Your task to perform on an android device: Do I have any events today? Image 0: 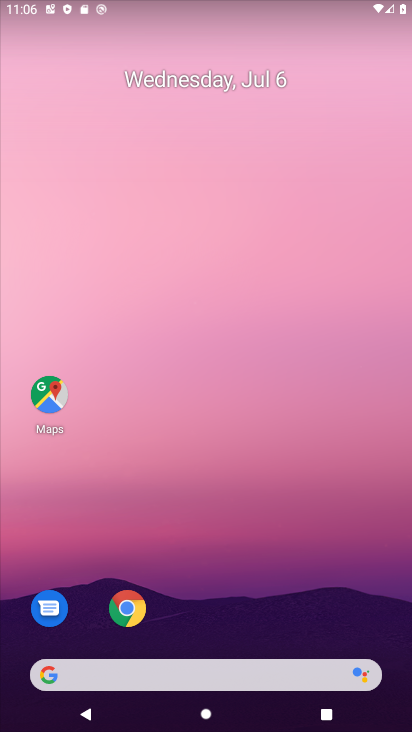
Step 0: drag from (197, 629) to (152, 120)
Your task to perform on an android device: Do I have any events today? Image 1: 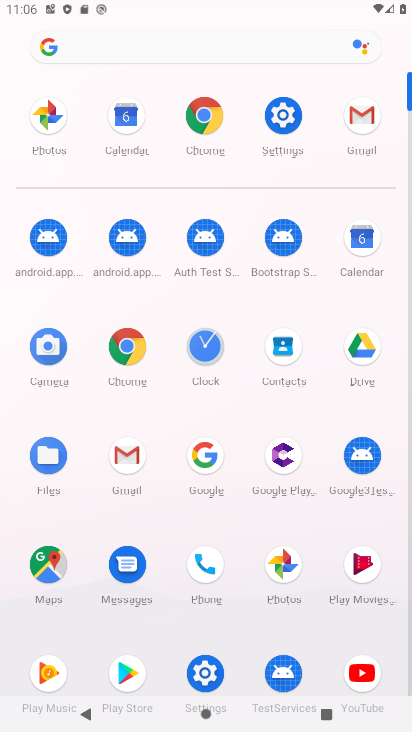
Step 1: click (354, 252)
Your task to perform on an android device: Do I have any events today? Image 2: 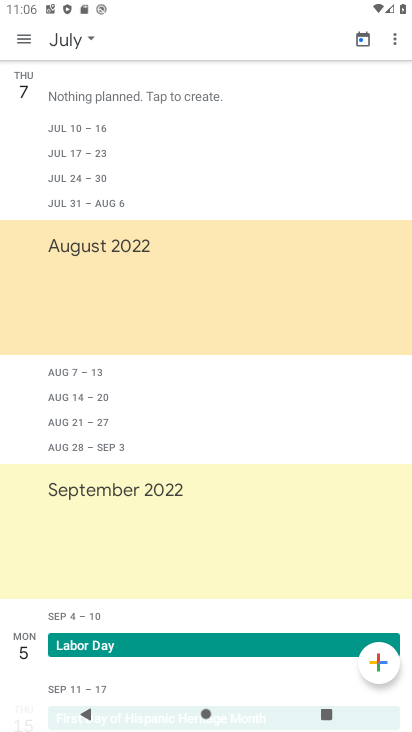
Step 2: click (364, 35)
Your task to perform on an android device: Do I have any events today? Image 3: 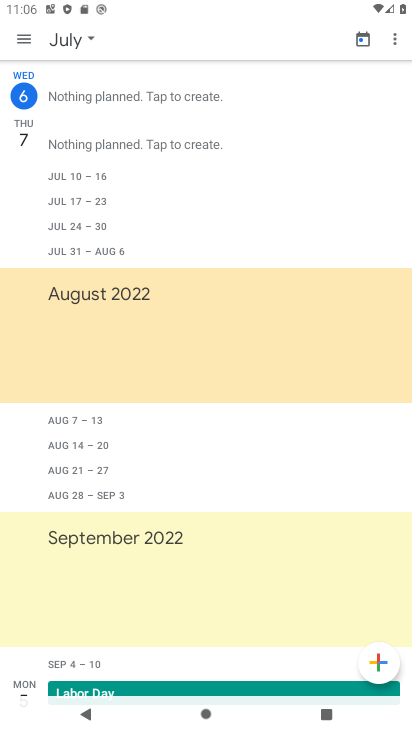
Step 3: click (364, 35)
Your task to perform on an android device: Do I have any events today? Image 4: 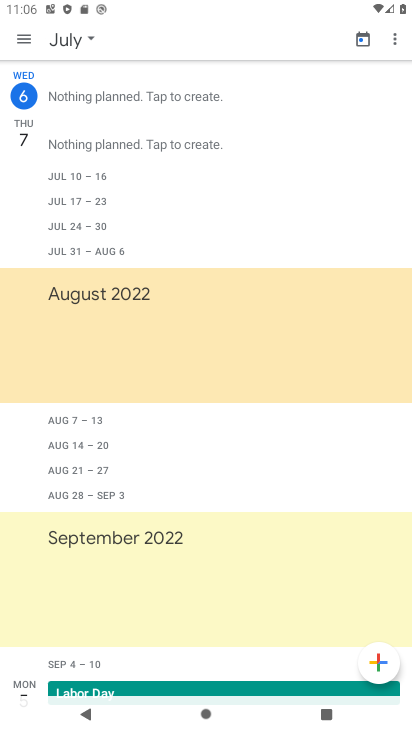
Step 4: click (364, 35)
Your task to perform on an android device: Do I have any events today? Image 5: 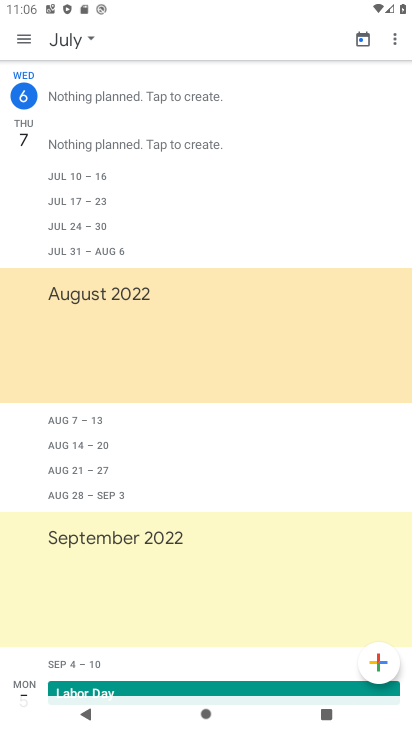
Step 5: click (20, 80)
Your task to perform on an android device: Do I have any events today? Image 6: 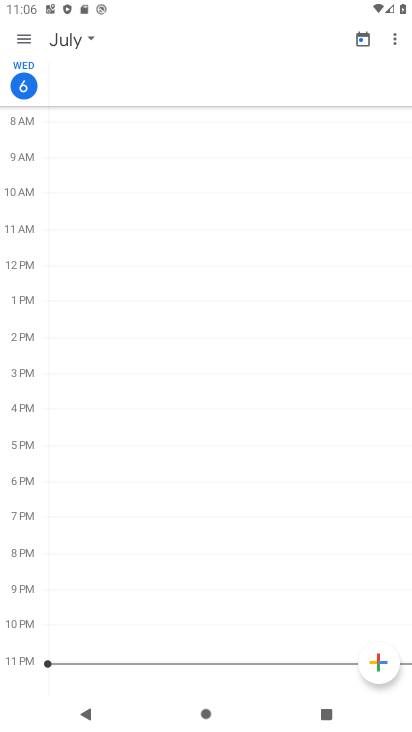
Step 6: task complete